Your task to perform on an android device: snooze an email in the gmail app Image 0: 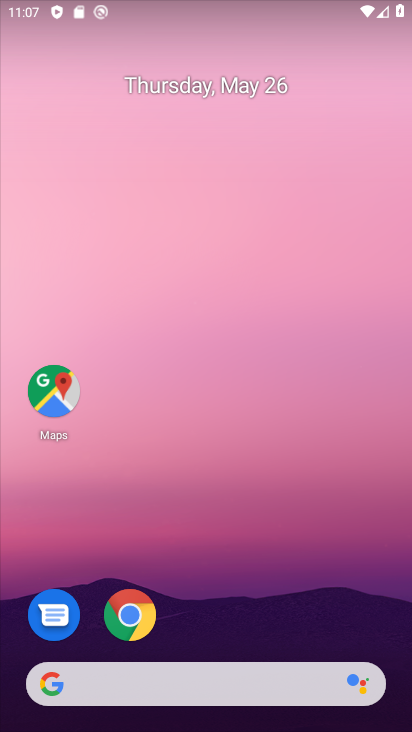
Step 0: drag from (268, 637) to (253, 83)
Your task to perform on an android device: snooze an email in the gmail app Image 1: 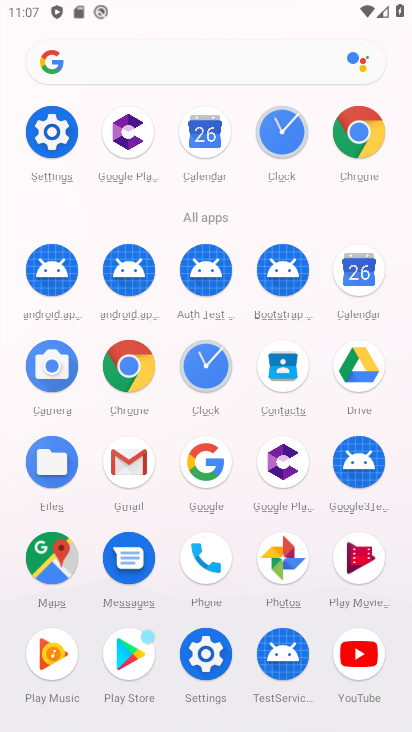
Step 1: click (127, 487)
Your task to perform on an android device: snooze an email in the gmail app Image 2: 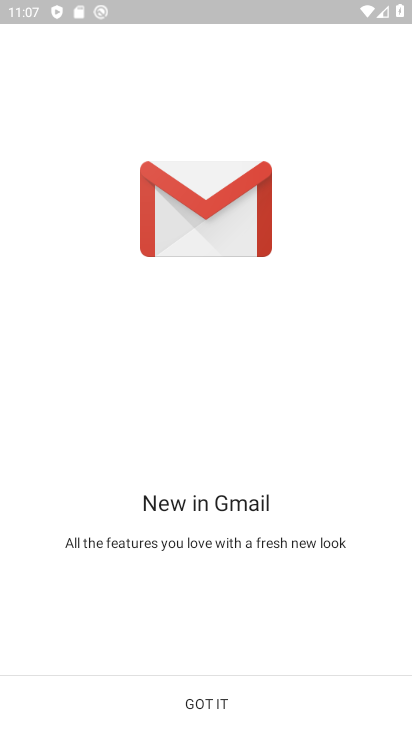
Step 2: click (209, 685)
Your task to perform on an android device: snooze an email in the gmail app Image 3: 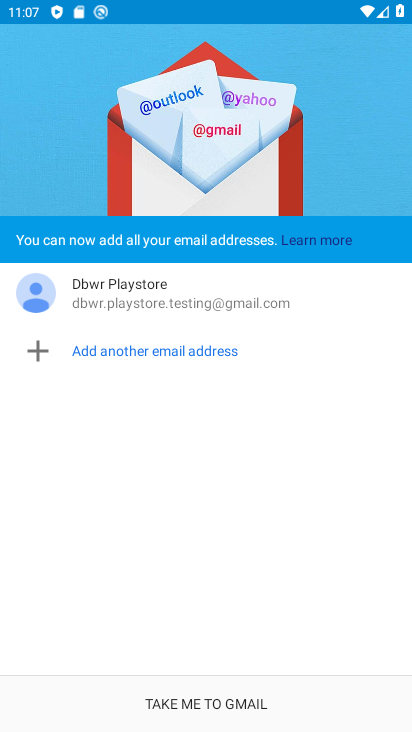
Step 3: click (209, 685)
Your task to perform on an android device: snooze an email in the gmail app Image 4: 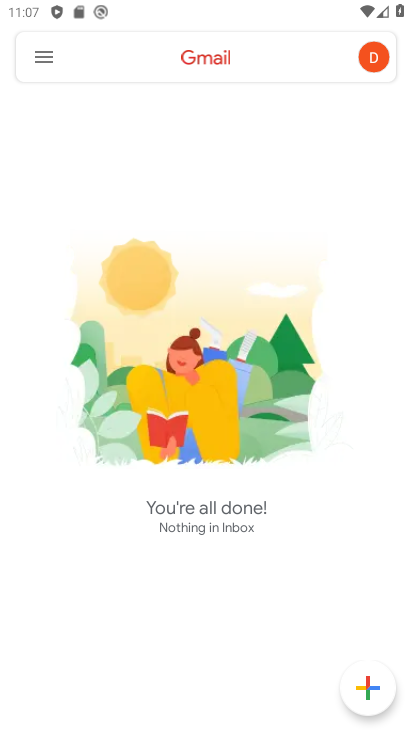
Step 4: click (31, 40)
Your task to perform on an android device: snooze an email in the gmail app Image 5: 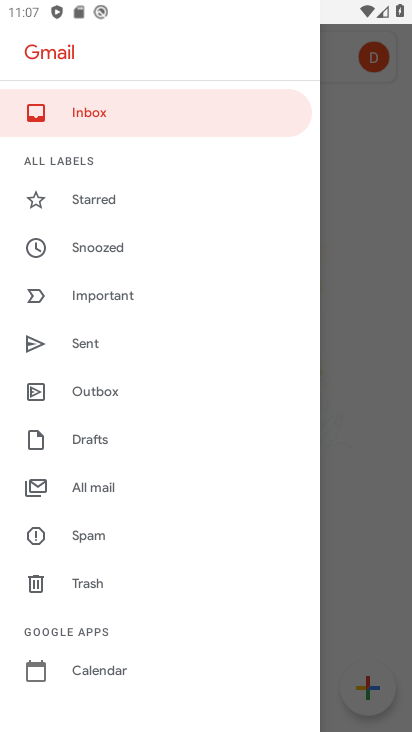
Step 5: task complete